Your task to perform on an android device: Check the weather Image 0: 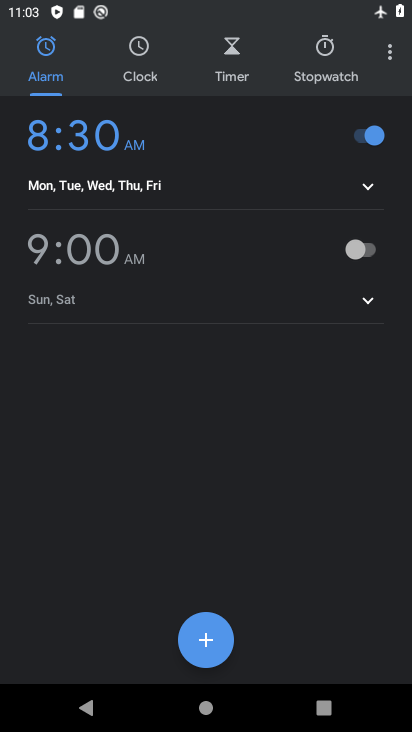
Step 0: press home button
Your task to perform on an android device: Check the weather Image 1: 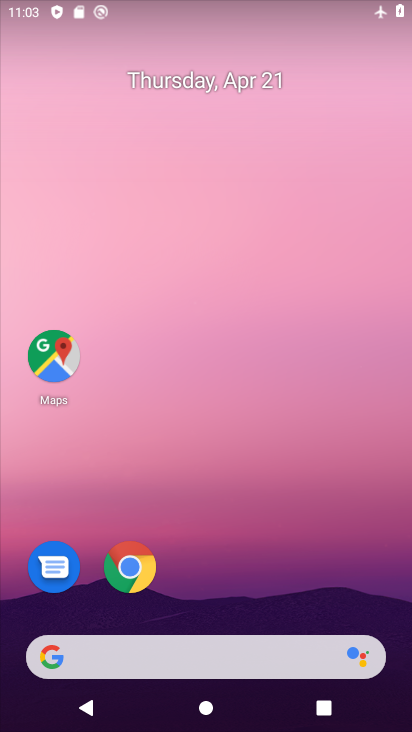
Step 1: drag from (216, 575) to (381, 24)
Your task to perform on an android device: Check the weather Image 2: 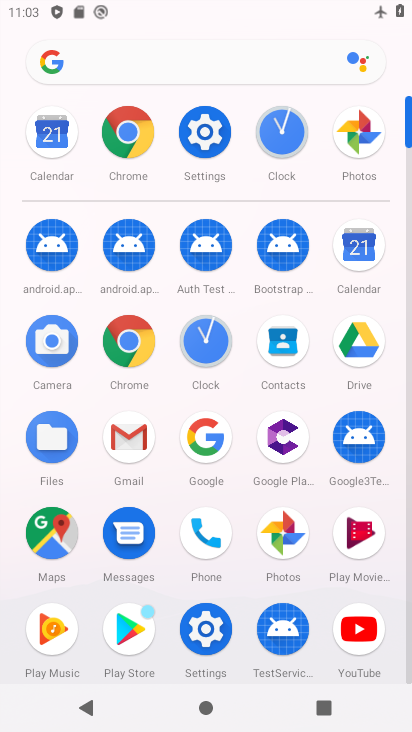
Step 2: click (162, 53)
Your task to perform on an android device: Check the weather Image 3: 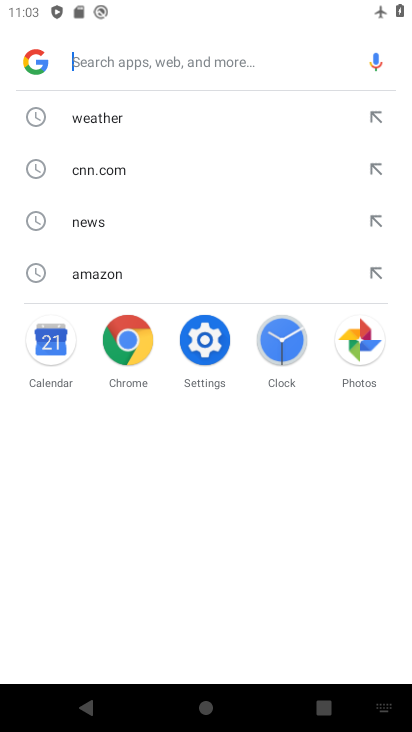
Step 3: click (107, 122)
Your task to perform on an android device: Check the weather Image 4: 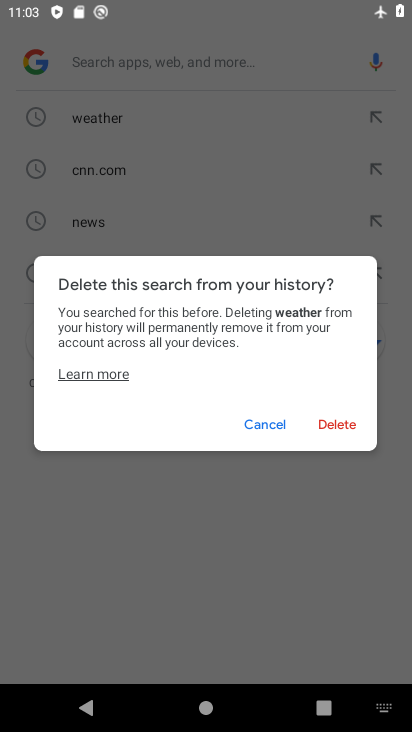
Step 4: click (265, 423)
Your task to perform on an android device: Check the weather Image 5: 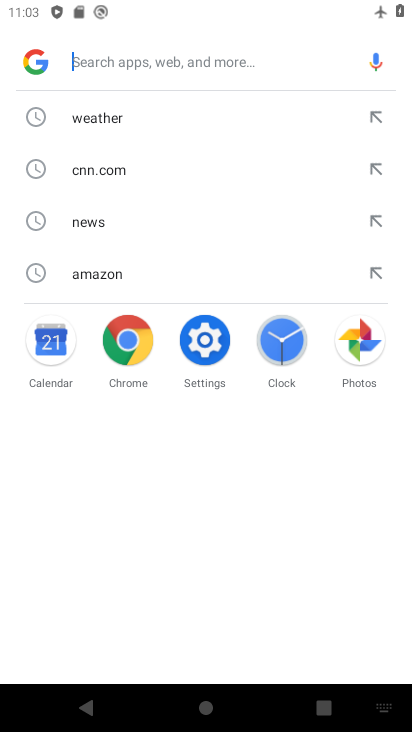
Step 5: click (101, 116)
Your task to perform on an android device: Check the weather Image 6: 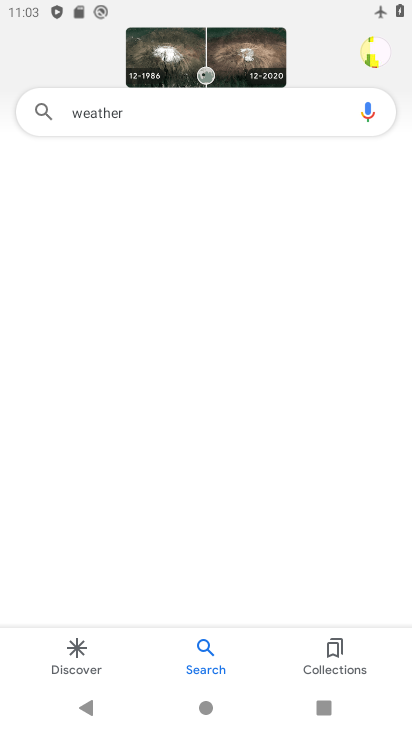
Step 6: task complete